Your task to perform on an android device: add a label to a message in the gmail app Image 0: 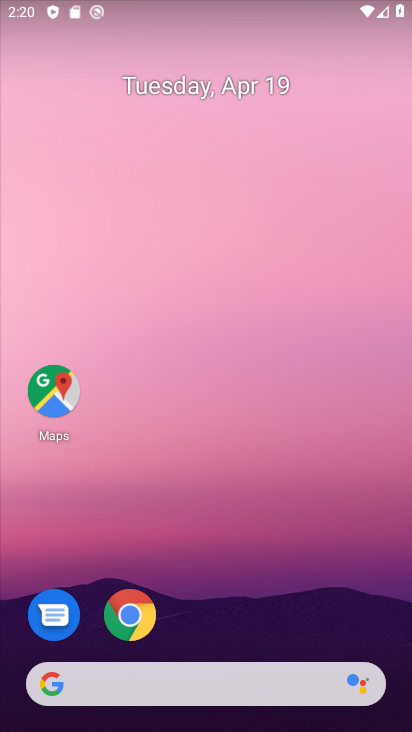
Step 0: drag from (318, 527) to (332, 219)
Your task to perform on an android device: add a label to a message in the gmail app Image 1: 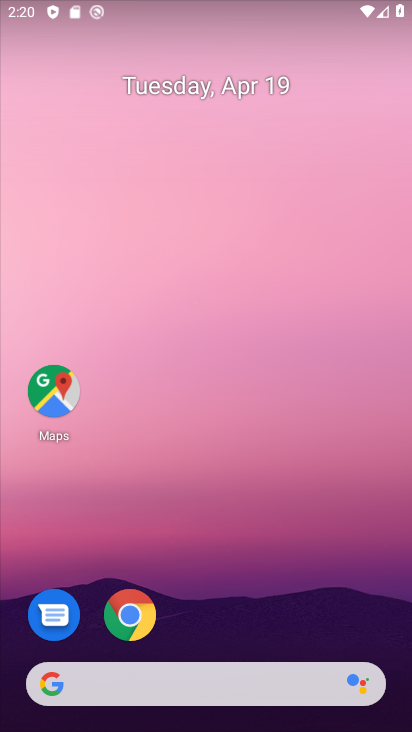
Step 1: drag from (242, 616) to (275, 275)
Your task to perform on an android device: add a label to a message in the gmail app Image 2: 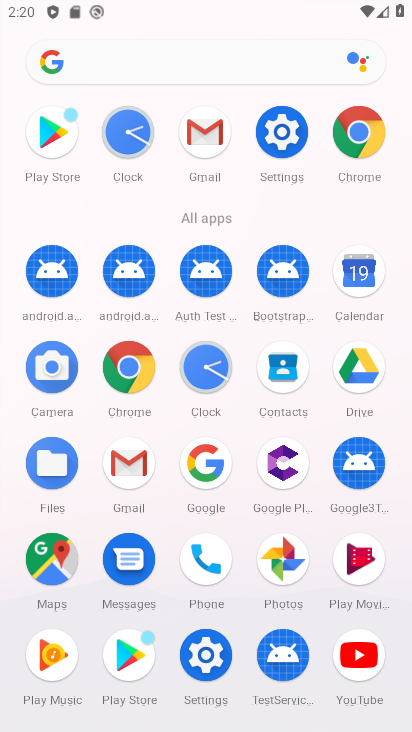
Step 2: click (131, 463)
Your task to perform on an android device: add a label to a message in the gmail app Image 3: 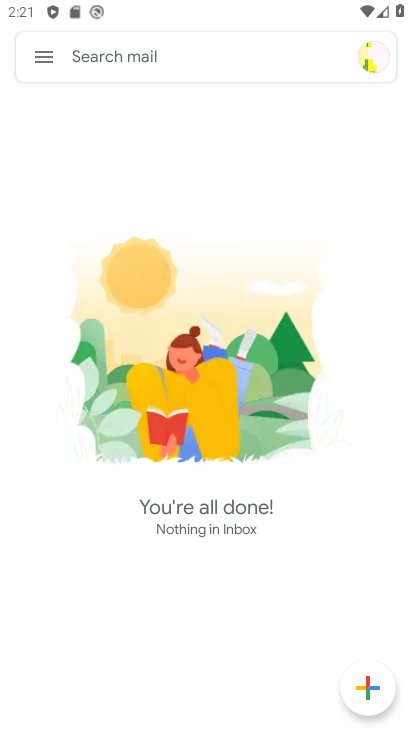
Step 3: click (35, 54)
Your task to perform on an android device: add a label to a message in the gmail app Image 4: 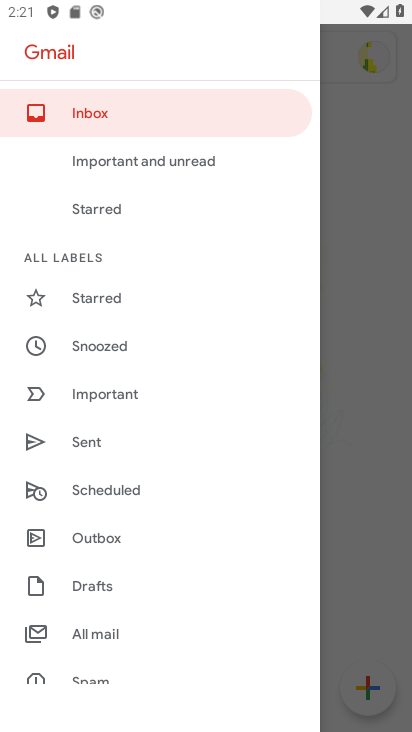
Step 4: click (132, 629)
Your task to perform on an android device: add a label to a message in the gmail app Image 5: 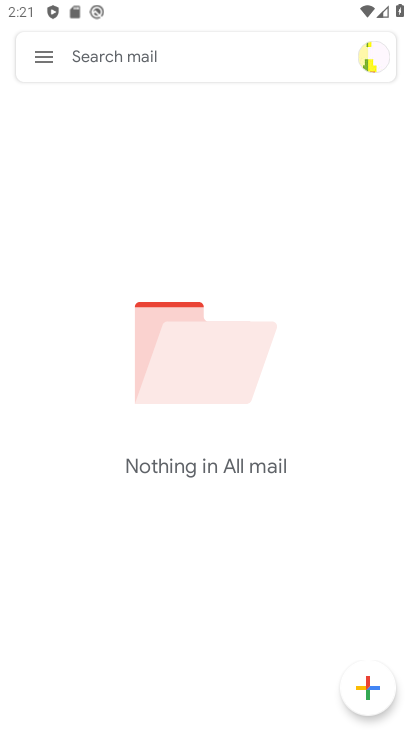
Step 5: task complete